Your task to perform on an android device: When is my next appointment? Image 0: 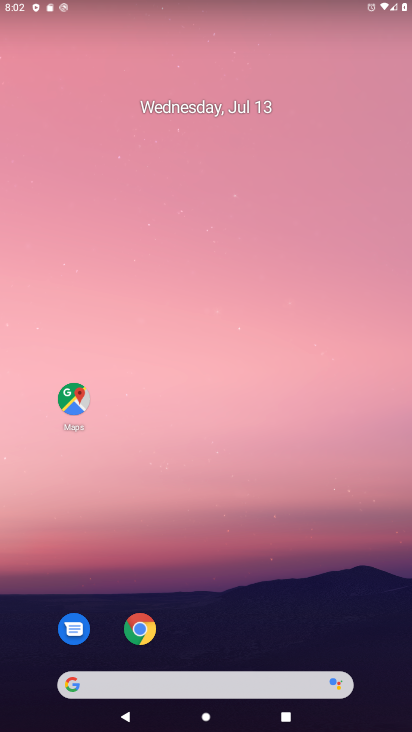
Step 0: drag from (221, 601) to (245, 4)
Your task to perform on an android device: When is my next appointment? Image 1: 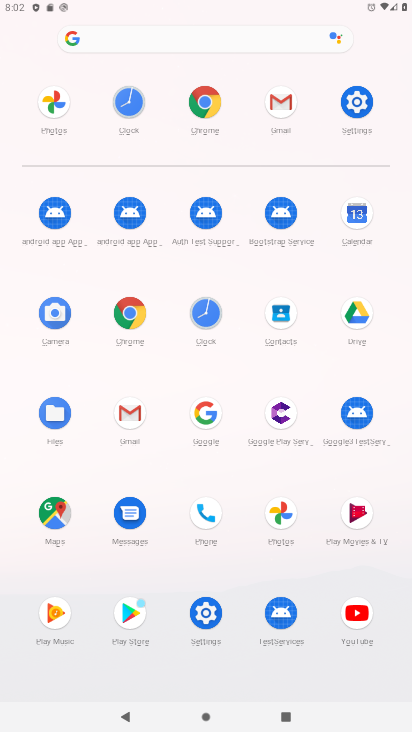
Step 1: click (369, 208)
Your task to perform on an android device: When is my next appointment? Image 2: 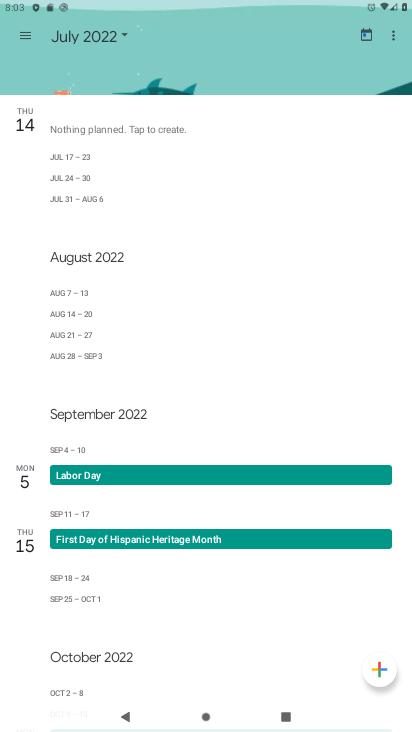
Step 2: task complete